Your task to perform on an android device: turn off wifi Image 0: 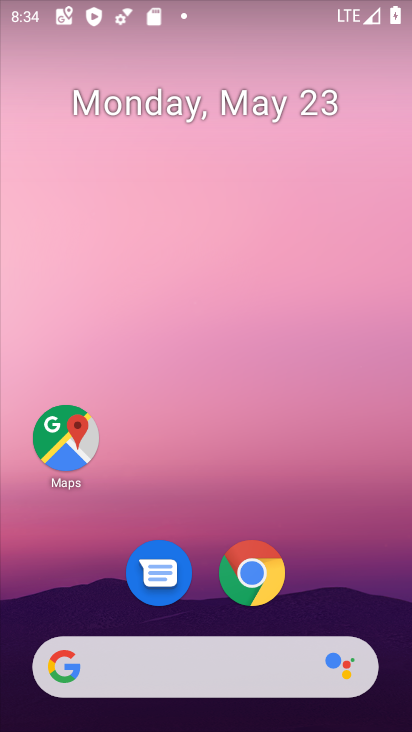
Step 0: drag from (235, 494) to (206, 27)
Your task to perform on an android device: turn off wifi Image 1: 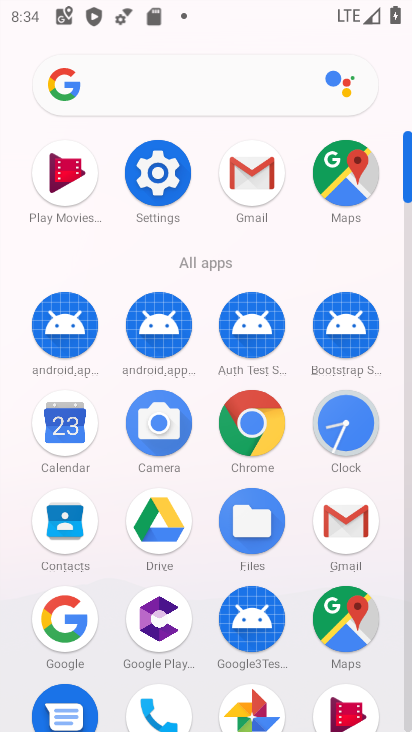
Step 1: click (171, 164)
Your task to perform on an android device: turn off wifi Image 2: 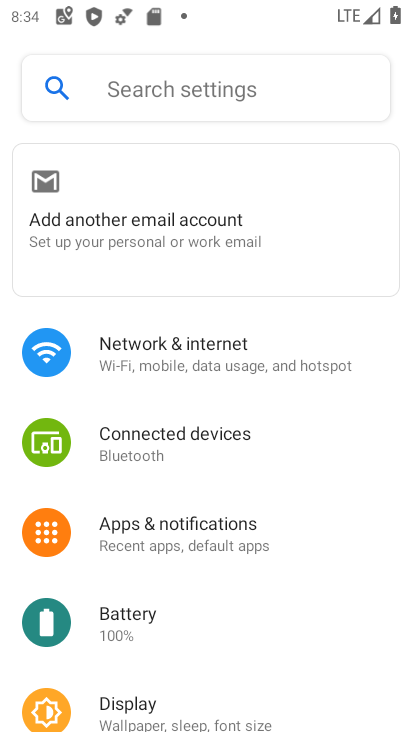
Step 2: click (198, 363)
Your task to perform on an android device: turn off wifi Image 3: 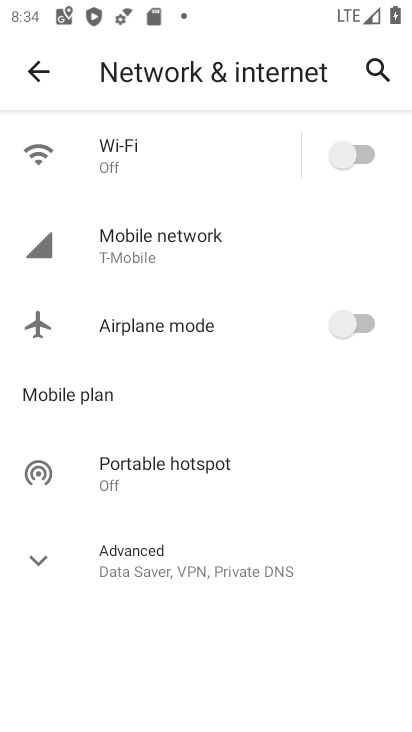
Step 3: task complete